Your task to perform on an android device: Open maps Image 0: 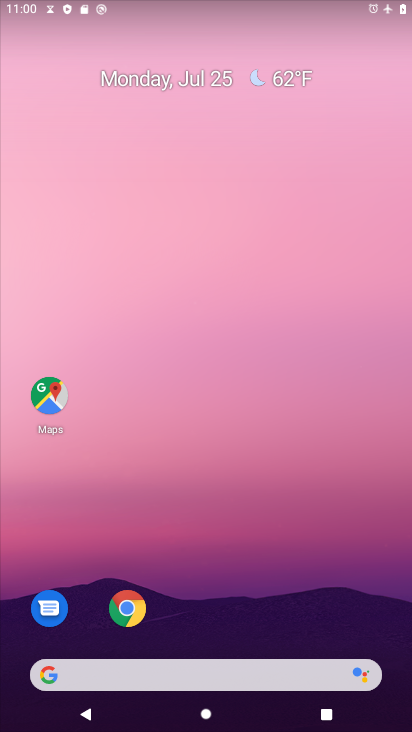
Step 0: click (43, 397)
Your task to perform on an android device: Open maps Image 1: 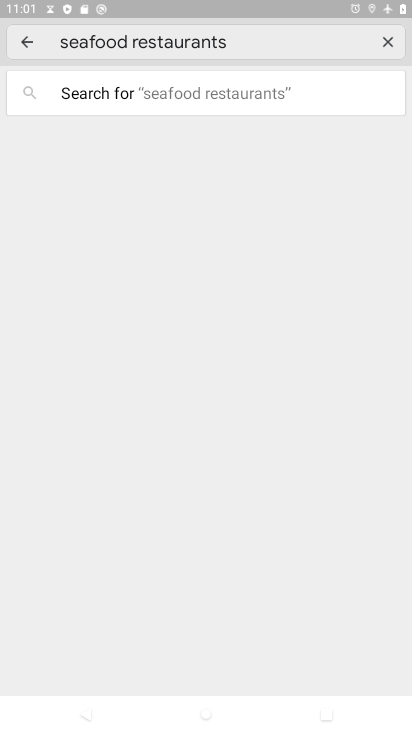
Step 1: task complete